Your task to perform on an android device: open wifi settings Image 0: 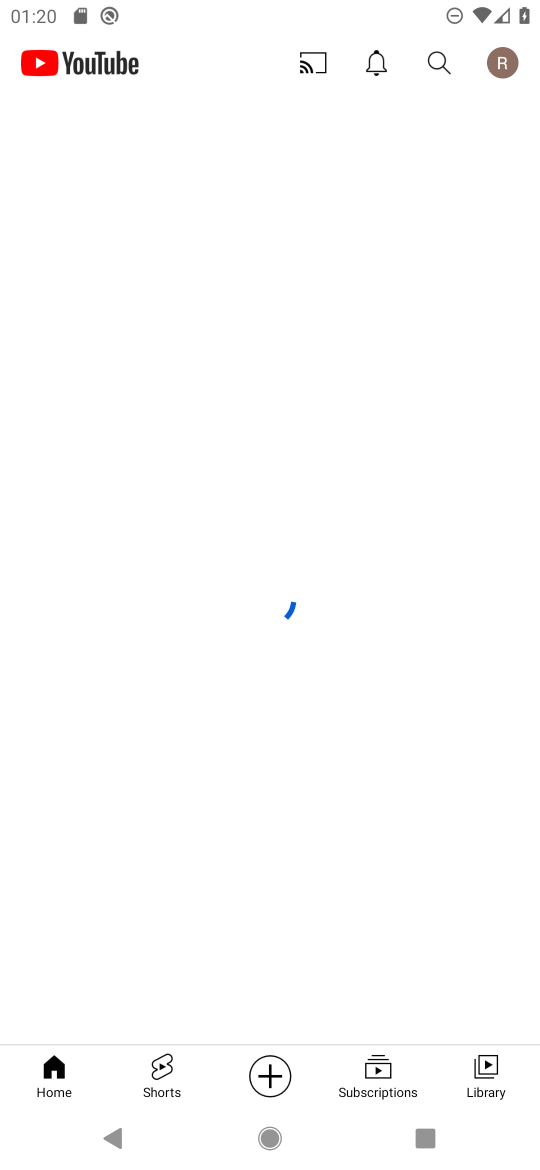
Step 0: drag from (203, 8) to (218, 877)
Your task to perform on an android device: open wifi settings Image 1: 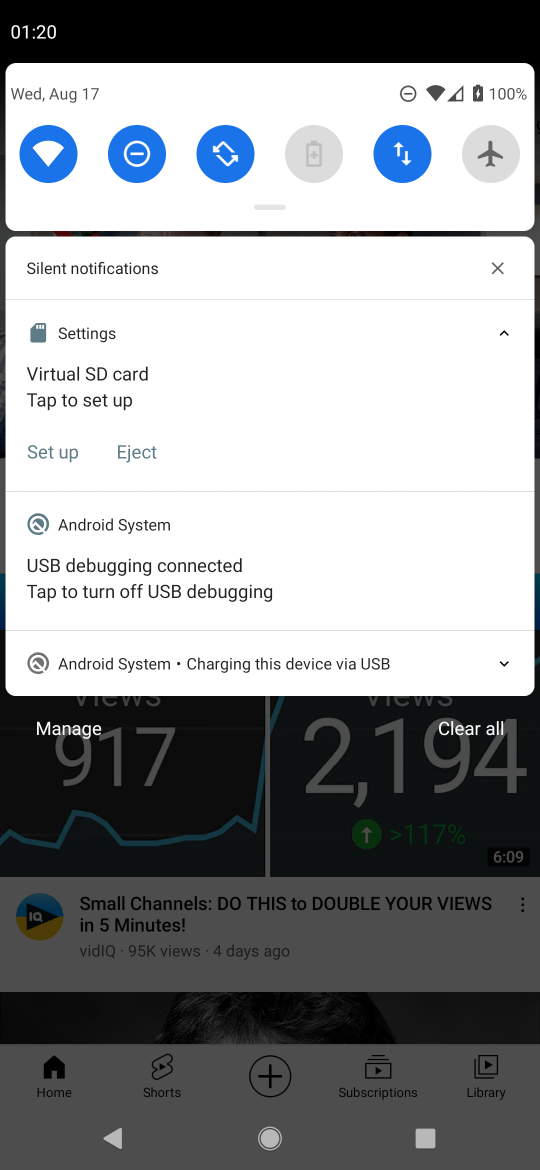
Step 1: click (58, 145)
Your task to perform on an android device: open wifi settings Image 2: 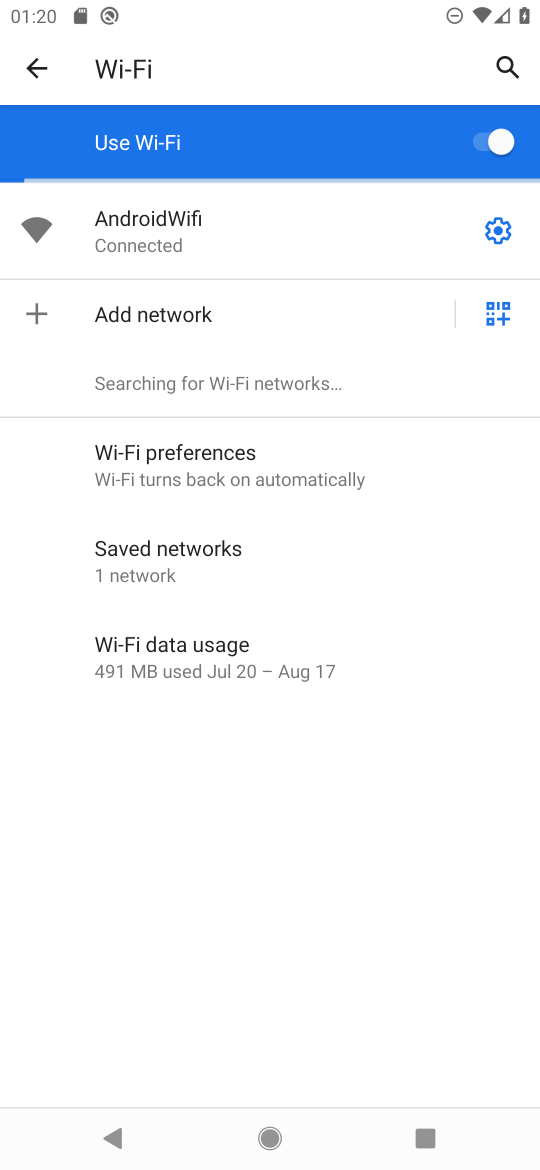
Step 2: task complete